Your task to perform on an android device: turn on priority inbox in the gmail app Image 0: 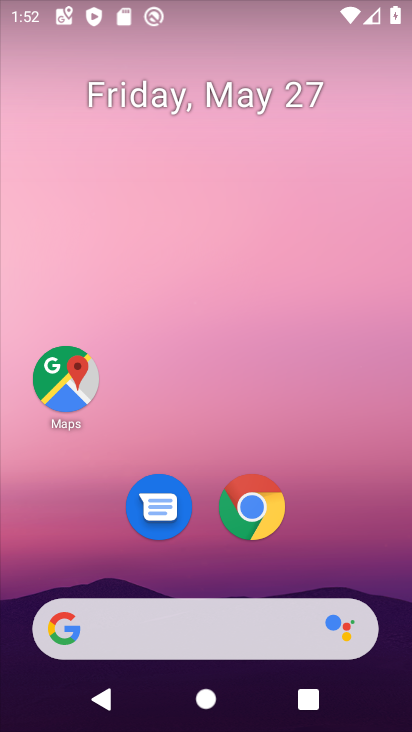
Step 0: drag from (201, 534) to (219, 40)
Your task to perform on an android device: turn on priority inbox in the gmail app Image 1: 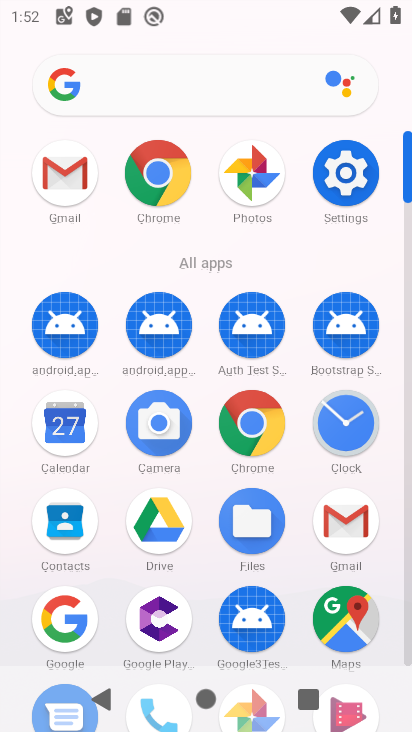
Step 1: click (351, 520)
Your task to perform on an android device: turn on priority inbox in the gmail app Image 2: 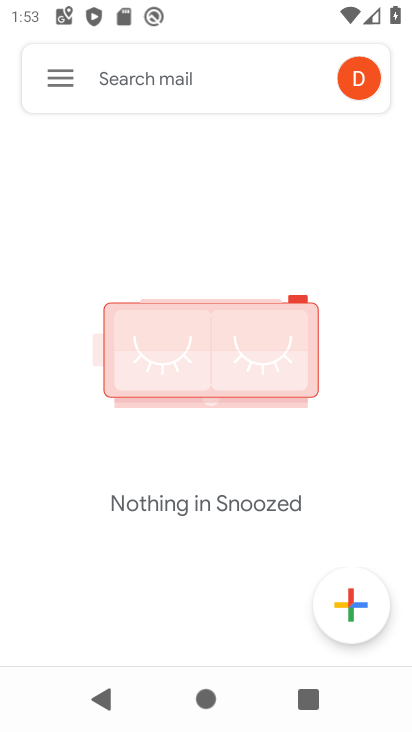
Step 2: click (70, 89)
Your task to perform on an android device: turn on priority inbox in the gmail app Image 3: 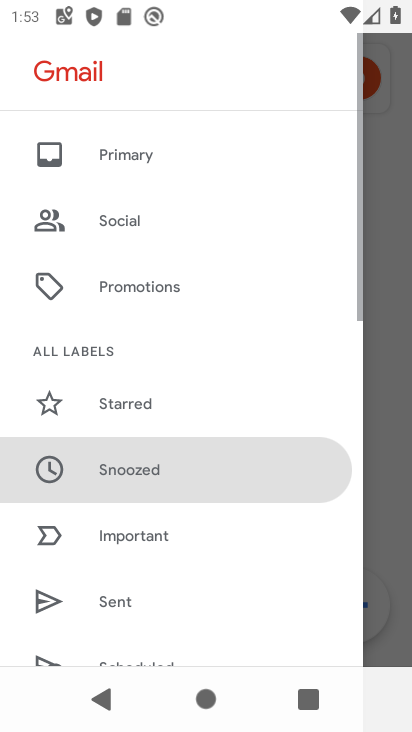
Step 3: drag from (156, 595) to (274, 34)
Your task to perform on an android device: turn on priority inbox in the gmail app Image 4: 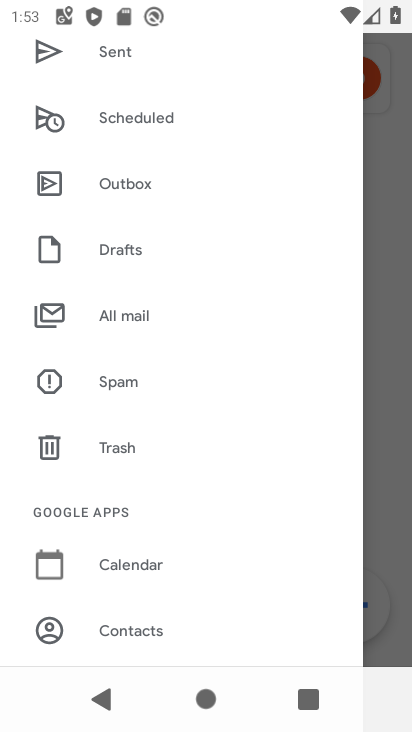
Step 4: drag from (158, 552) to (235, 67)
Your task to perform on an android device: turn on priority inbox in the gmail app Image 5: 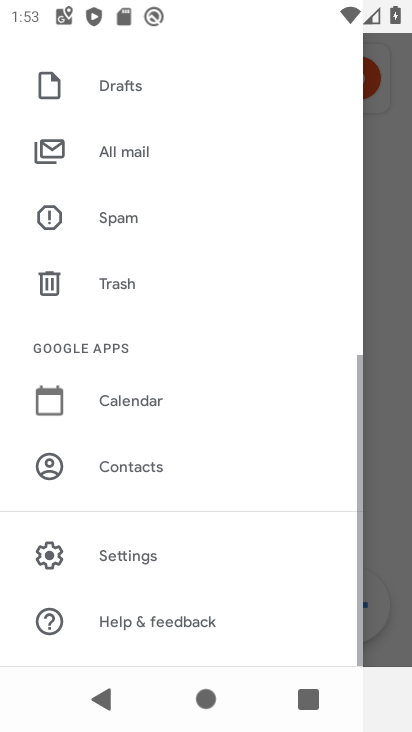
Step 5: click (134, 545)
Your task to perform on an android device: turn on priority inbox in the gmail app Image 6: 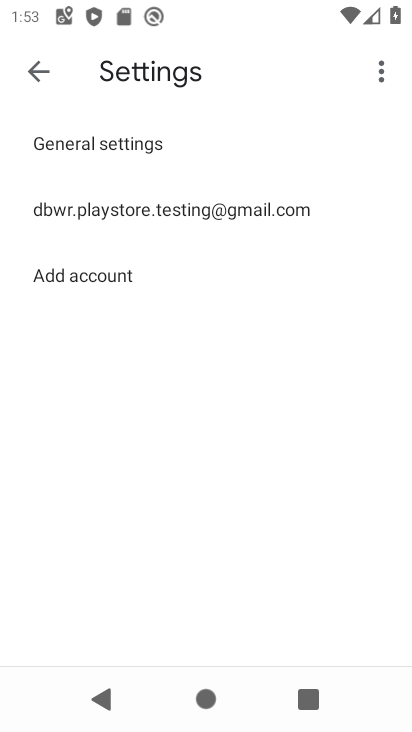
Step 6: click (111, 224)
Your task to perform on an android device: turn on priority inbox in the gmail app Image 7: 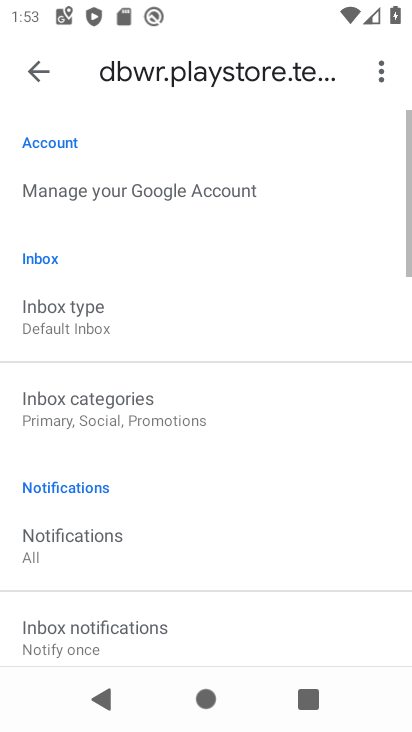
Step 7: click (86, 322)
Your task to perform on an android device: turn on priority inbox in the gmail app Image 8: 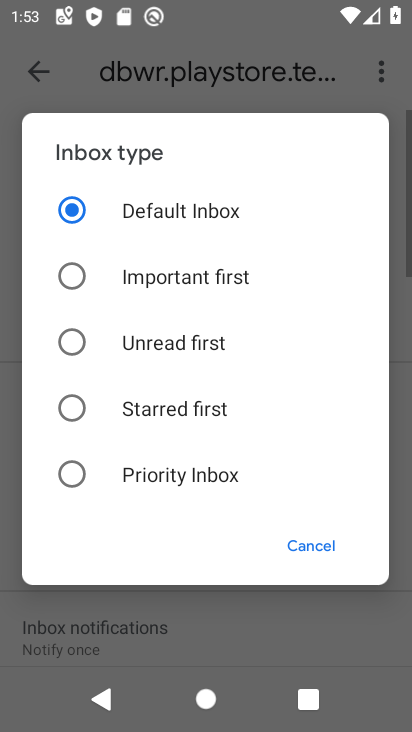
Step 8: click (111, 493)
Your task to perform on an android device: turn on priority inbox in the gmail app Image 9: 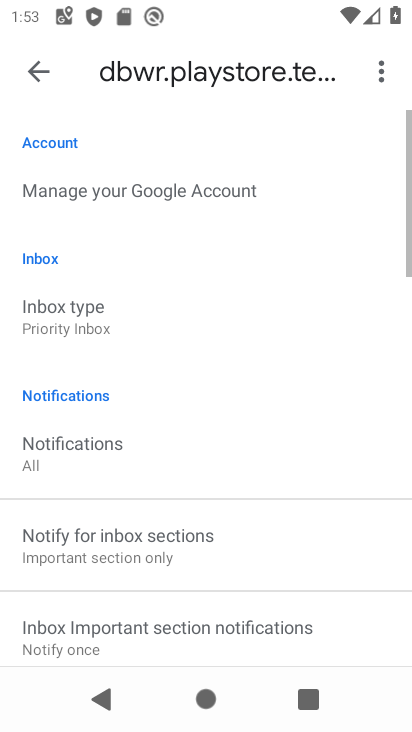
Step 9: task complete